Your task to perform on an android device: turn vacation reply on in the gmail app Image 0: 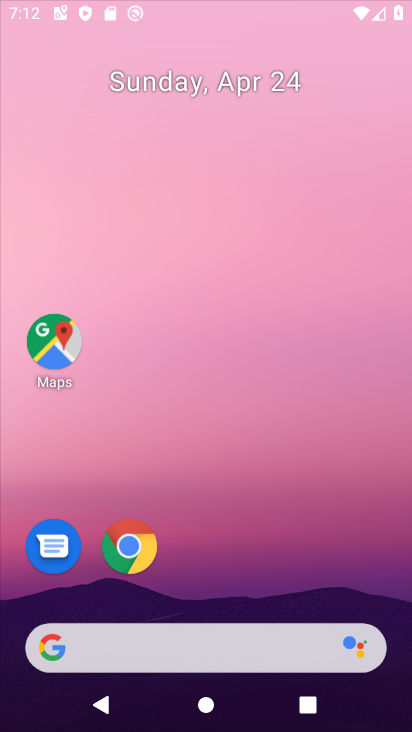
Step 0: click (245, 2)
Your task to perform on an android device: turn vacation reply on in the gmail app Image 1: 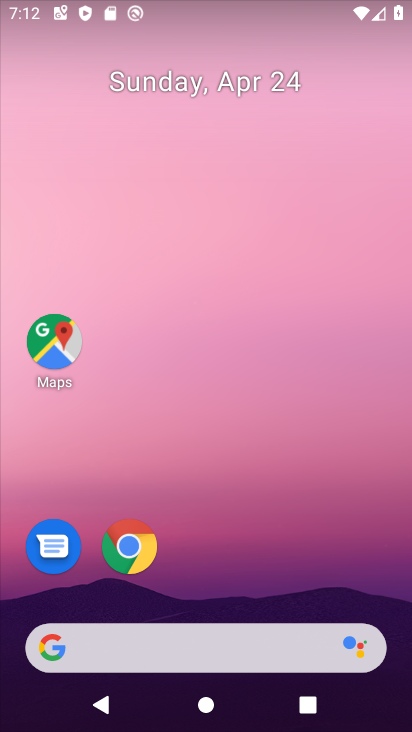
Step 1: drag from (233, 557) to (296, 34)
Your task to perform on an android device: turn vacation reply on in the gmail app Image 2: 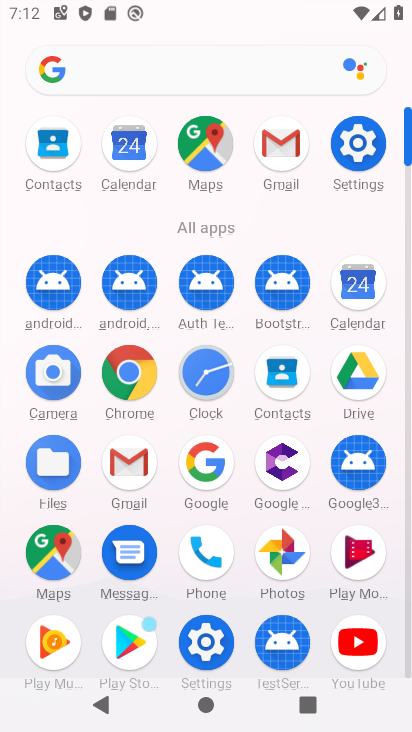
Step 2: click (276, 147)
Your task to perform on an android device: turn vacation reply on in the gmail app Image 3: 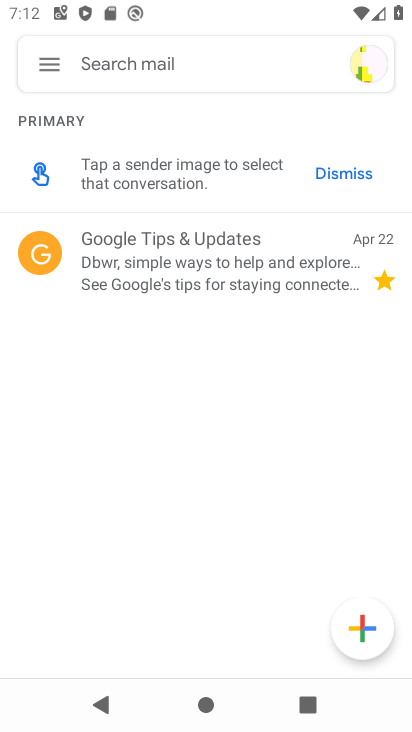
Step 3: click (43, 56)
Your task to perform on an android device: turn vacation reply on in the gmail app Image 4: 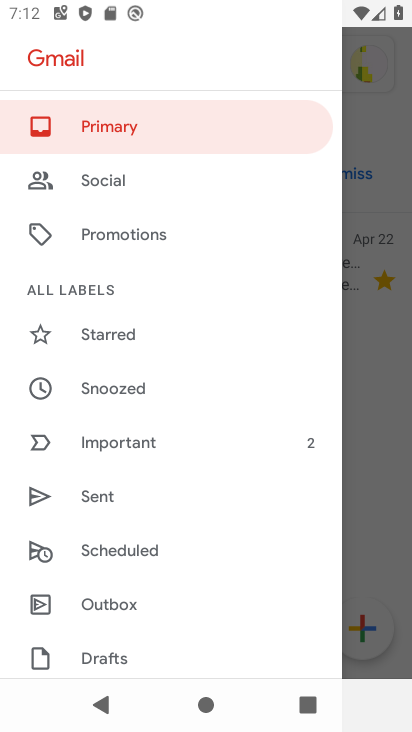
Step 4: drag from (182, 619) to (207, 132)
Your task to perform on an android device: turn vacation reply on in the gmail app Image 5: 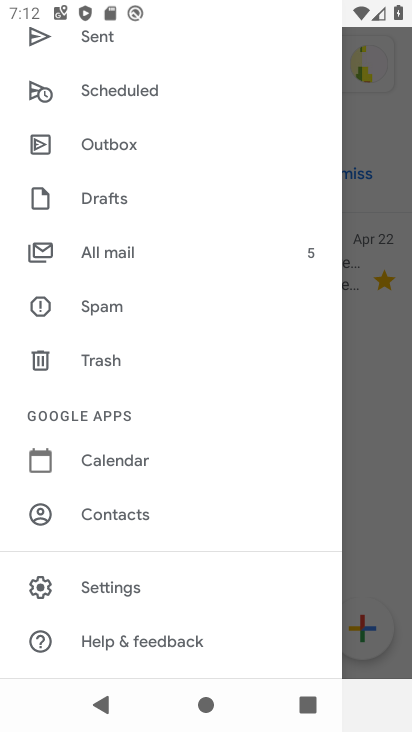
Step 5: click (119, 586)
Your task to perform on an android device: turn vacation reply on in the gmail app Image 6: 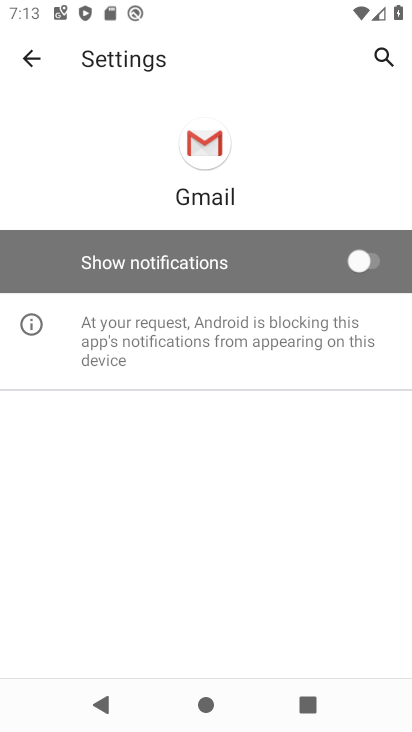
Step 6: click (28, 57)
Your task to perform on an android device: turn vacation reply on in the gmail app Image 7: 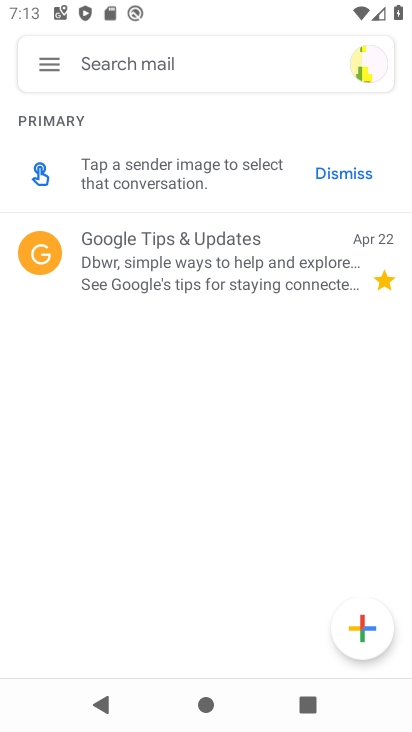
Step 7: click (50, 64)
Your task to perform on an android device: turn vacation reply on in the gmail app Image 8: 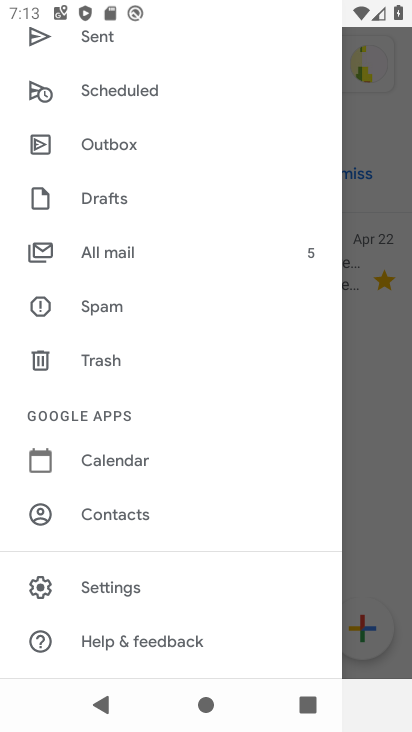
Step 8: click (109, 584)
Your task to perform on an android device: turn vacation reply on in the gmail app Image 9: 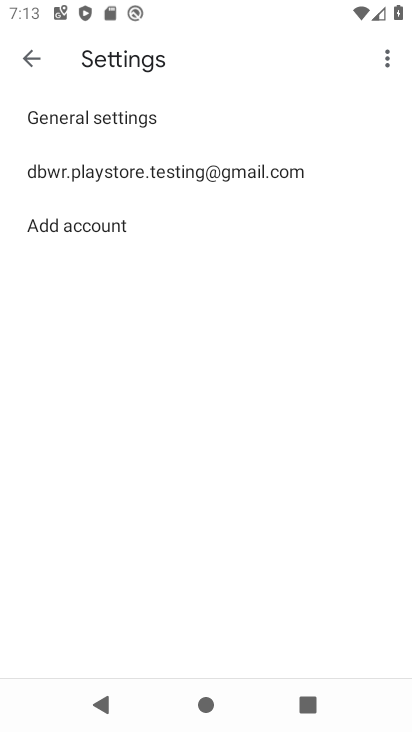
Step 9: click (101, 164)
Your task to perform on an android device: turn vacation reply on in the gmail app Image 10: 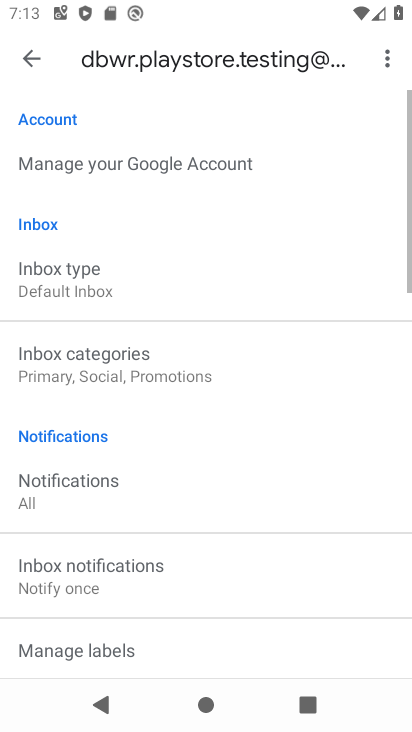
Step 10: drag from (212, 505) to (295, 11)
Your task to perform on an android device: turn vacation reply on in the gmail app Image 11: 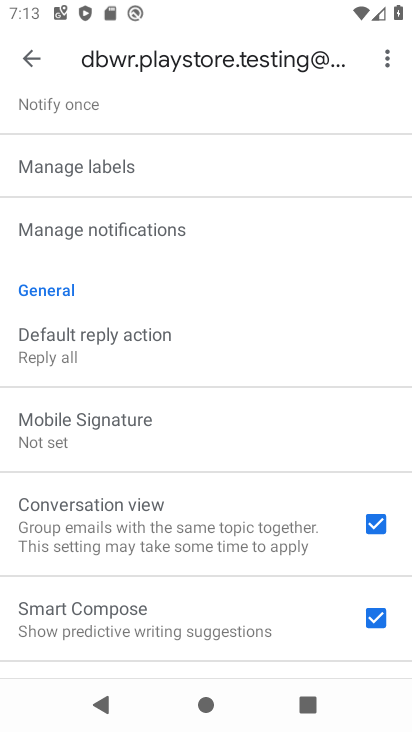
Step 11: drag from (248, 427) to (219, 16)
Your task to perform on an android device: turn vacation reply on in the gmail app Image 12: 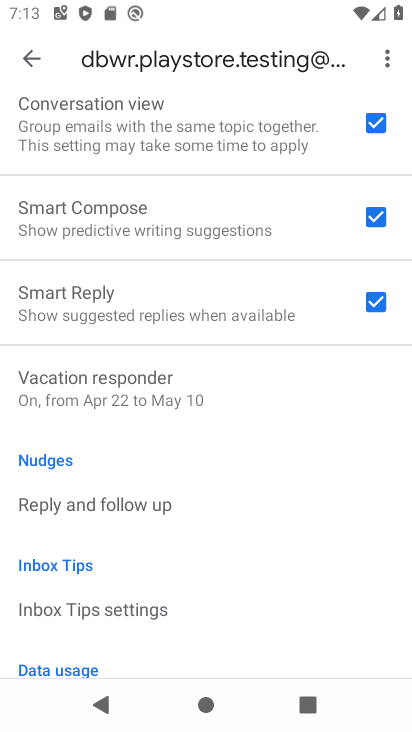
Step 12: click (108, 375)
Your task to perform on an android device: turn vacation reply on in the gmail app Image 13: 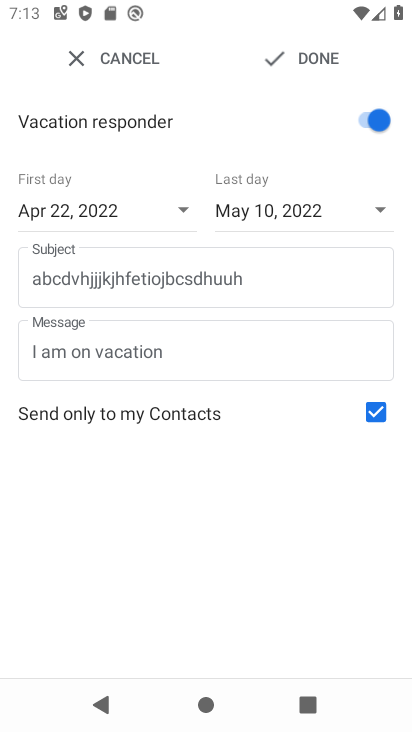
Step 13: task complete